Your task to perform on an android device: Show me the alarms in the clock app Image 0: 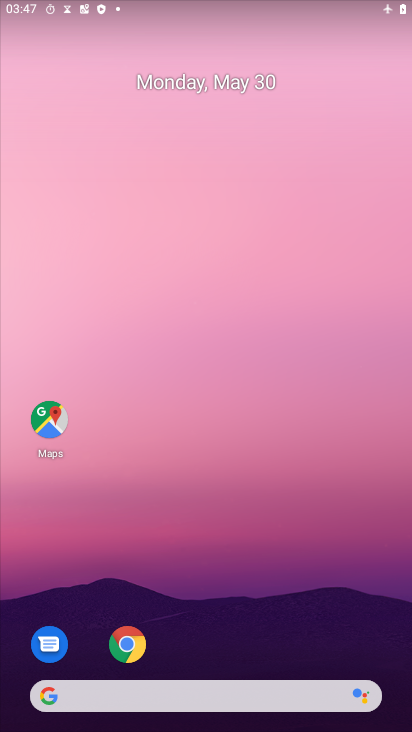
Step 0: press home button
Your task to perform on an android device: Show me the alarms in the clock app Image 1: 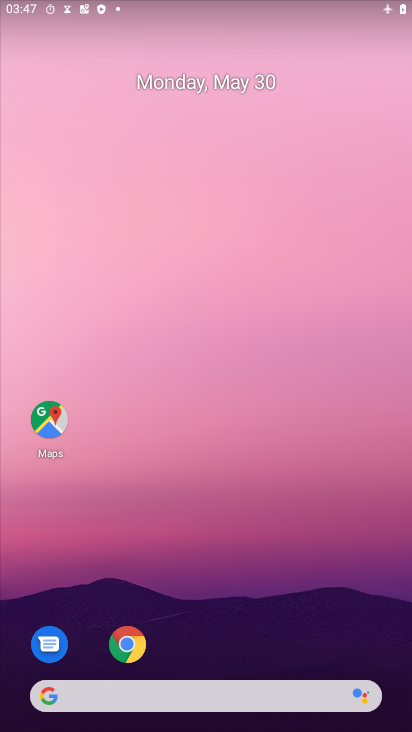
Step 1: drag from (218, 612) to (224, 347)
Your task to perform on an android device: Show me the alarms in the clock app Image 2: 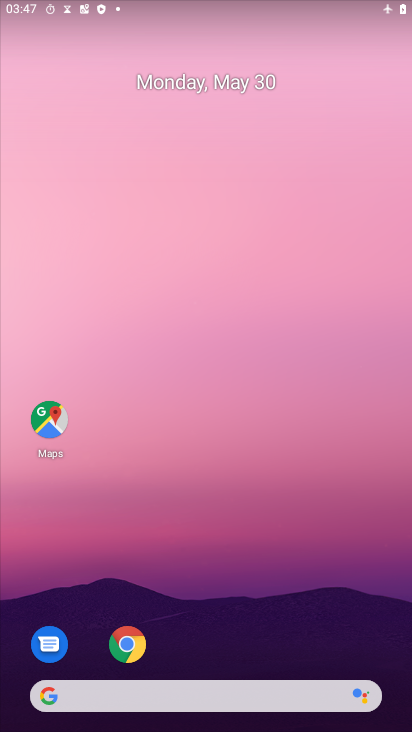
Step 2: drag from (284, 651) to (279, 292)
Your task to perform on an android device: Show me the alarms in the clock app Image 3: 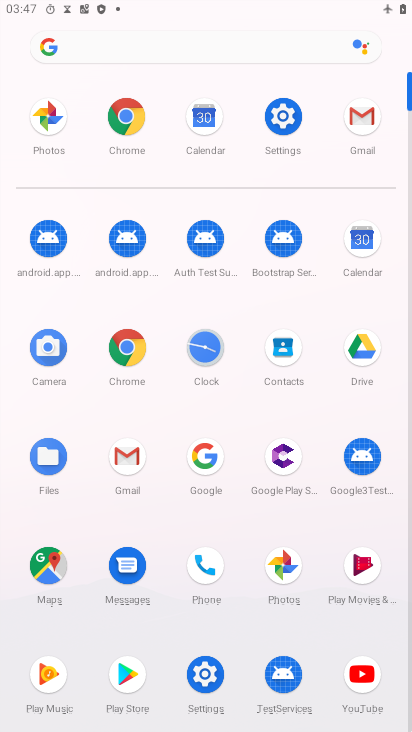
Step 3: click (209, 355)
Your task to perform on an android device: Show me the alarms in the clock app Image 4: 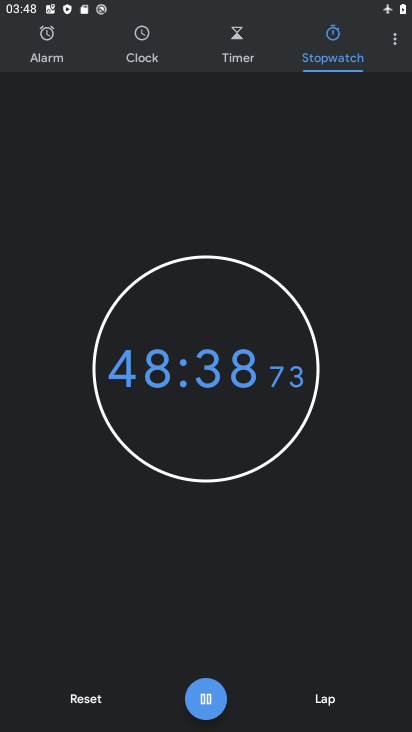
Step 4: click (56, 46)
Your task to perform on an android device: Show me the alarms in the clock app Image 5: 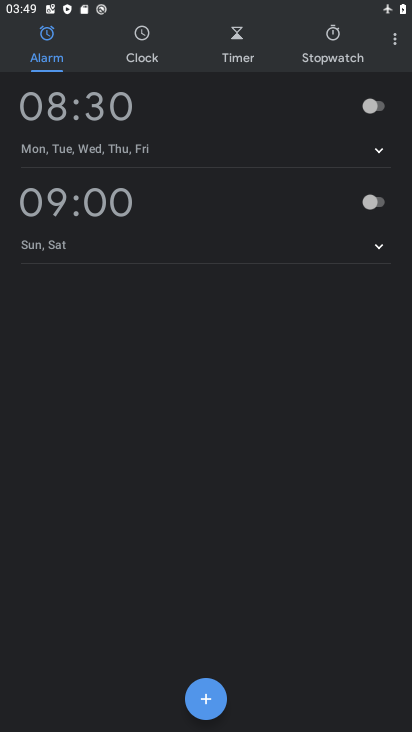
Step 5: task complete